Your task to perform on an android device: see tabs open on other devices in the chrome app Image 0: 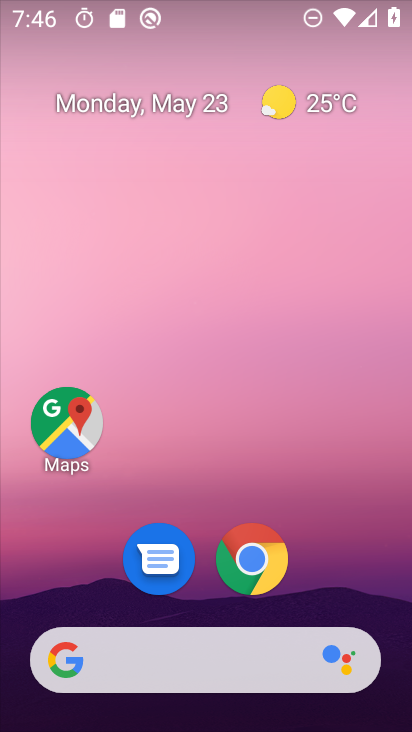
Step 0: drag from (367, 613) to (323, 75)
Your task to perform on an android device: see tabs open on other devices in the chrome app Image 1: 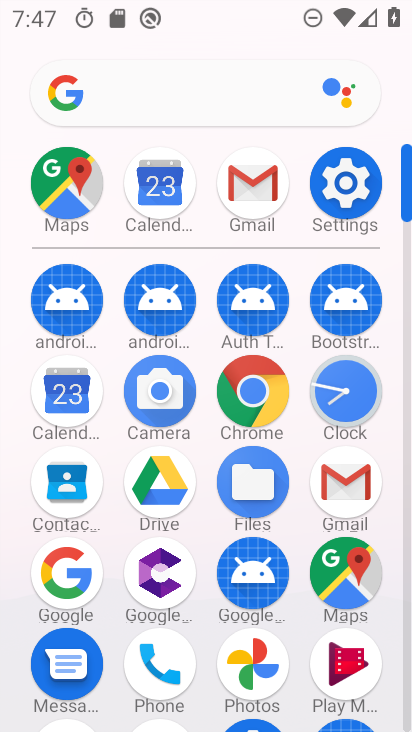
Step 1: click (266, 384)
Your task to perform on an android device: see tabs open on other devices in the chrome app Image 2: 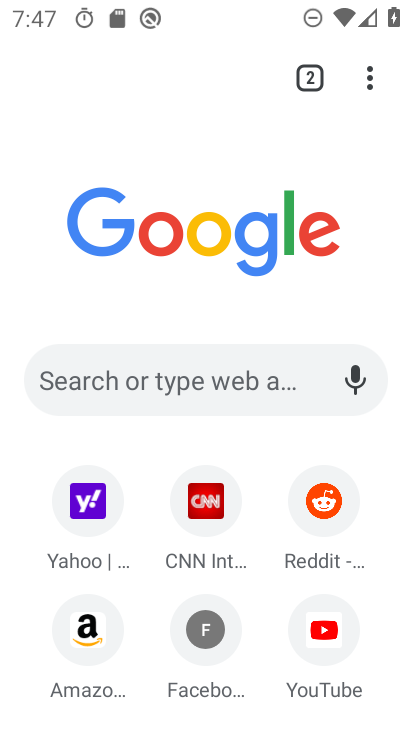
Step 2: task complete